Your task to perform on an android device: Open location settings Image 0: 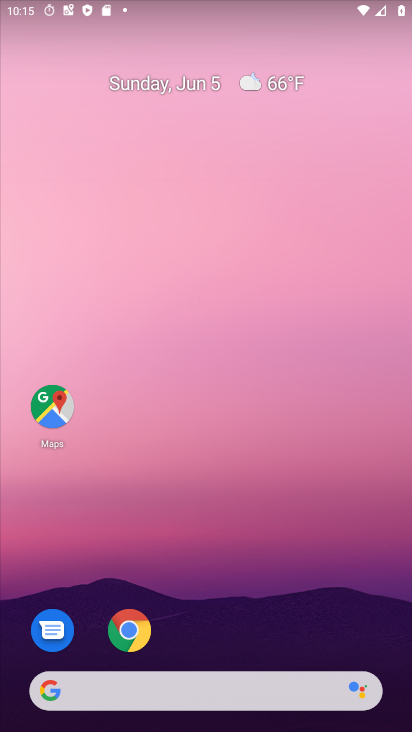
Step 0: drag from (214, 425) to (214, 69)
Your task to perform on an android device: Open location settings Image 1: 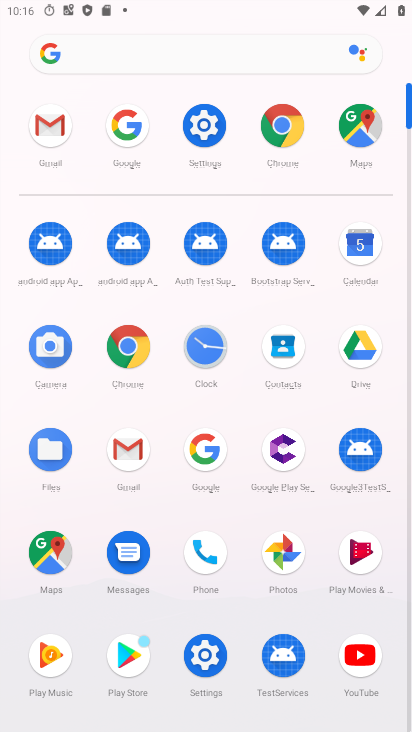
Step 1: click (203, 120)
Your task to perform on an android device: Open location settings Image 2: 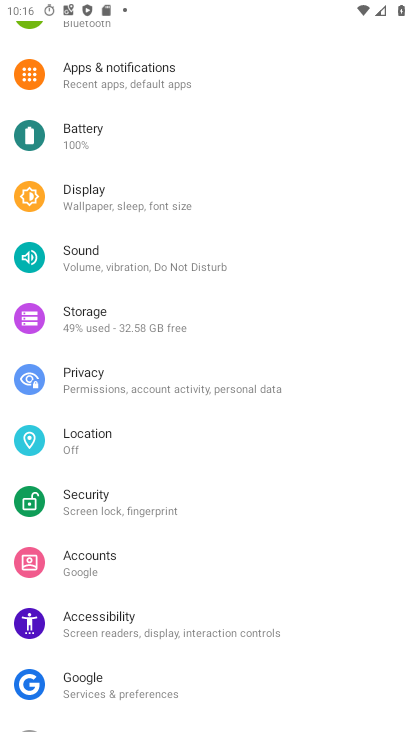
Step 2: click (77, 435)
Your task to perform on an android device: Open location settings Image 3: 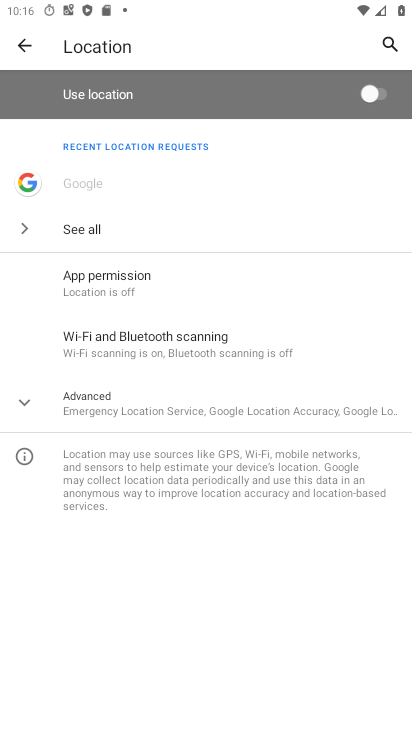
Step 3: task complete